Your task to perform on an android device: Go to wifi settings Image 0: 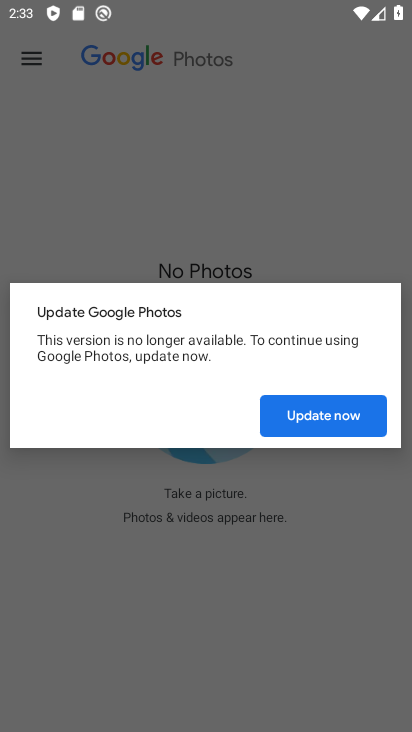
Step 0: press back button
Your task to perform on an android device: Go to wifi settings Image 1: 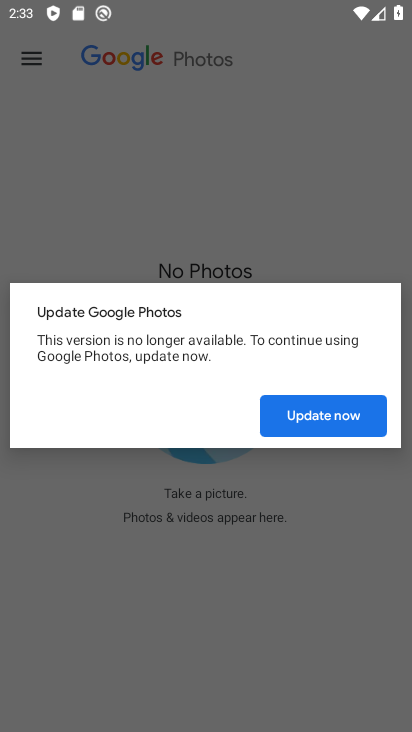
Step 1: press home button
Your task to perform on an android device: Go to wifi settings Image 2: 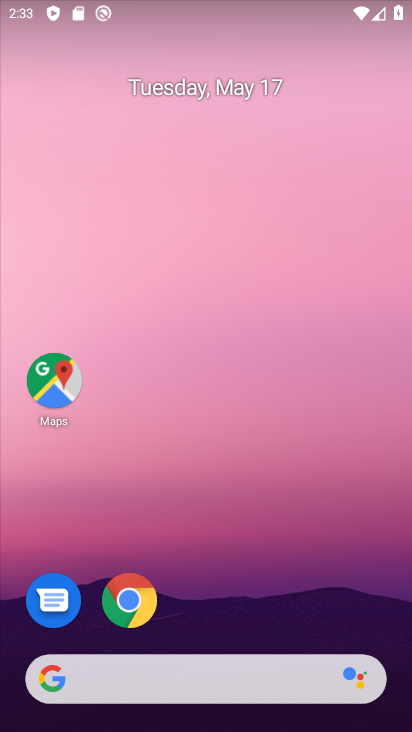
Step 2: drag from (191, 636) to (284, 116)
Your task to perform on an android device: Go to wifi settings Image 3: 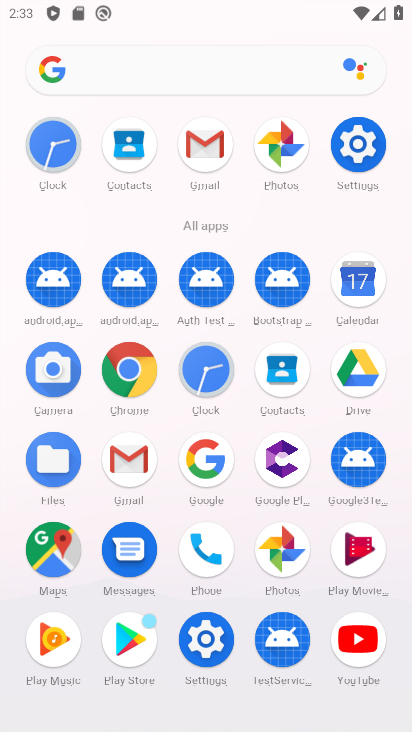
Step 3: drag from (171, 624) to (200, 432)
Your task to perform on an android device: Go to wifi settings Image 4: 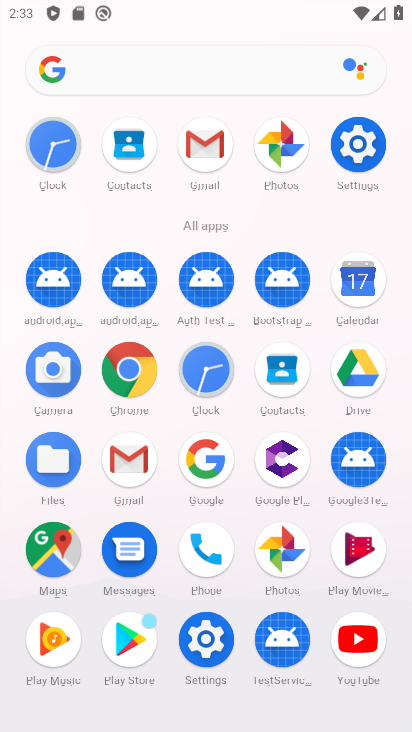
Step 4: click (211, 628)
Your task to perform on an android device: Go to wifi settings Image 5: 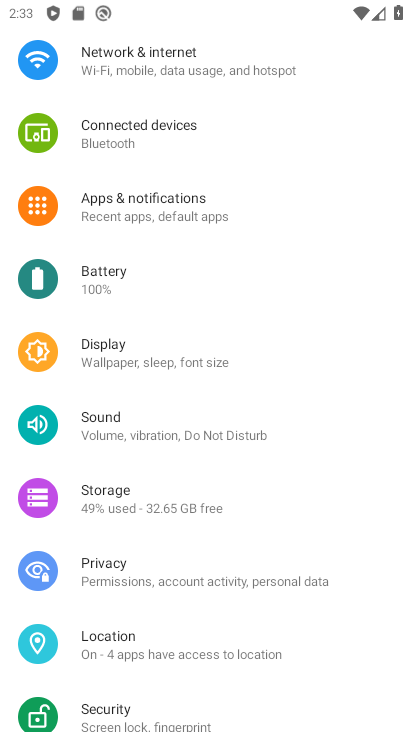
Step 5: drag from (223, 120) to (217, 405)
Your task to perform on an android device: Go to wifi settings Image 6: 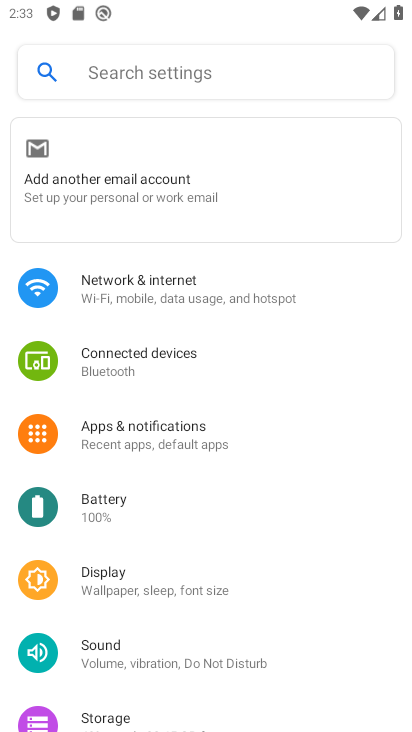
Step 6: click (153, 285)
Your task to perform on an android device: Go to wifi settings Image 7: 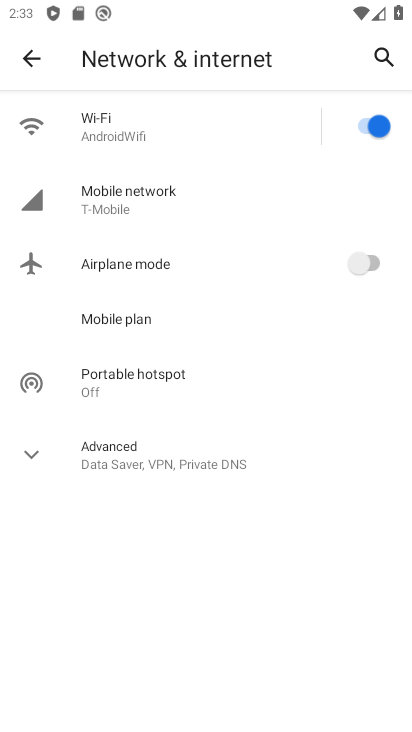
Step 7: click (204, 133)
Your task to perform on an android device: Go to wifi settings Image 8: 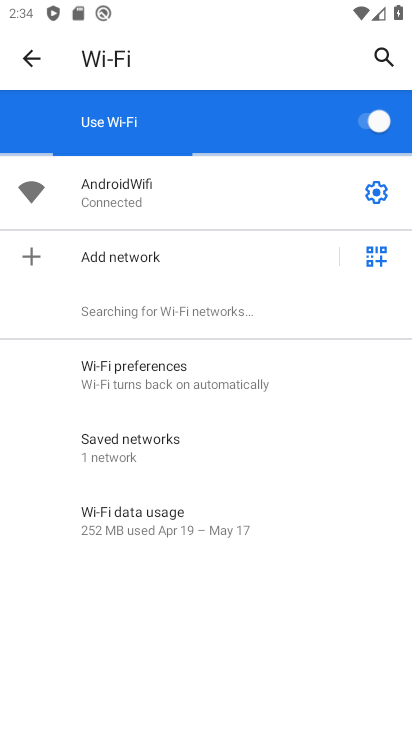
Step 8: task complete